Your task to perform on an android device: Open accessibility settings Image 0: 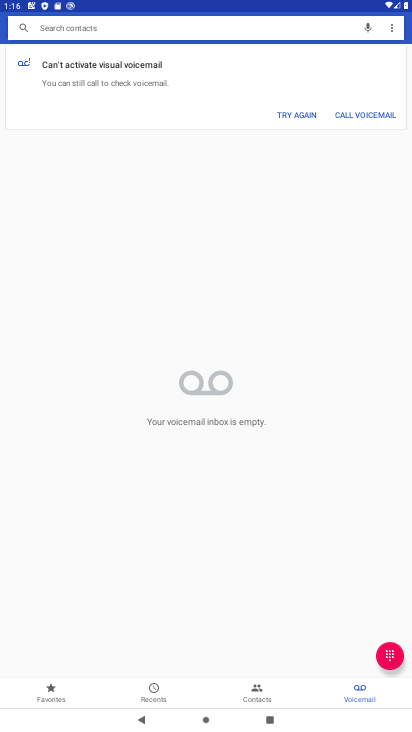
Step 0: press home button
Your task to perform on an android device: Open accessibility settings Image 1: 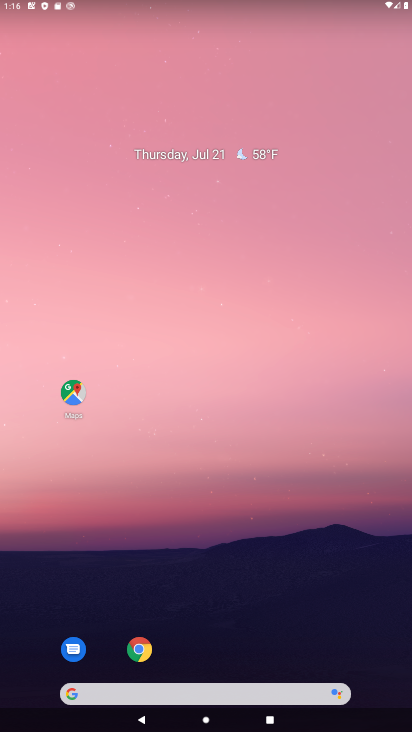
Step 1: drag from (268, 658) to (206, 69)
Your task to perform on an android device: Open accessibility settings Image 2: 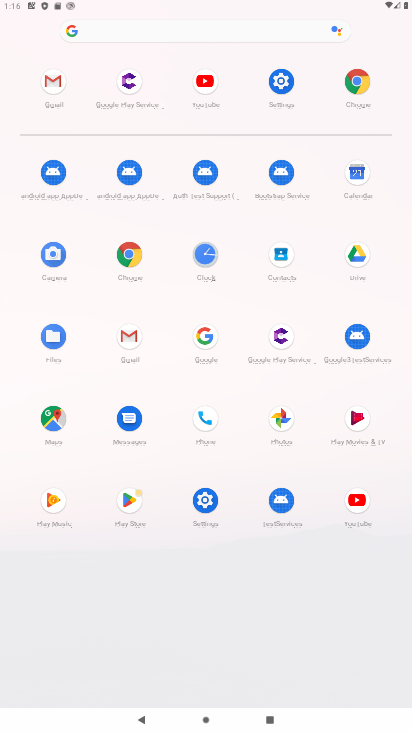
Step 2: click (266, 85)
Your task to perform on an android device: Open accessibility settings Image 3: 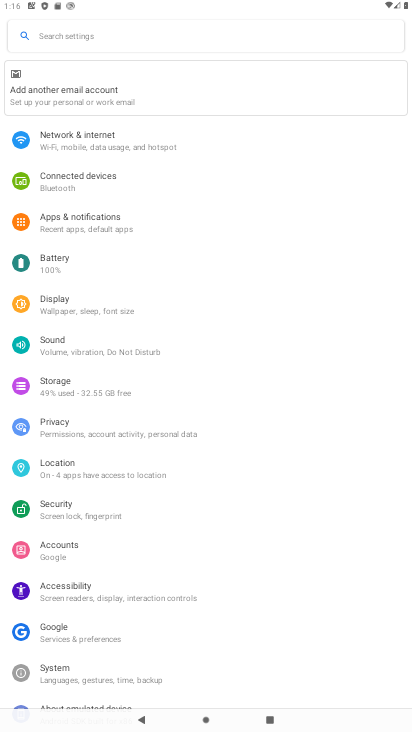
Step 3: drag from (178, 451) to (178, 299)
Your task to perform on an android device: Open accessibility settings Image 4: 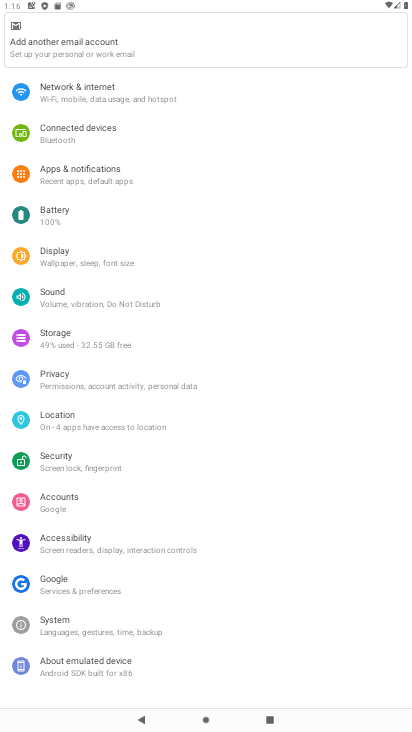
Step 4: click (116, 538)
Your task to perform on an android device: Open accessibility settings Image 5: 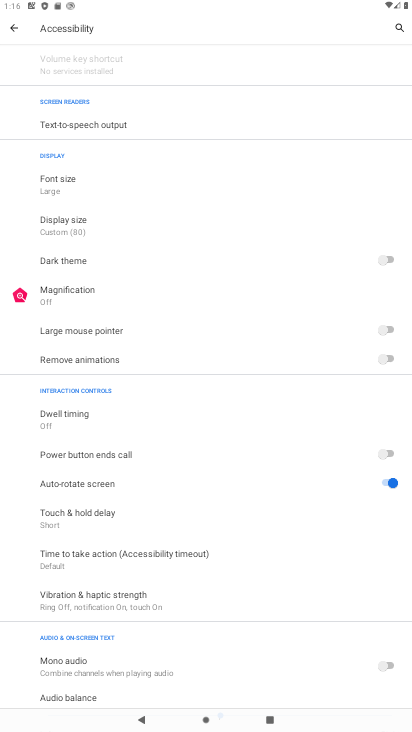
Step 5: task complete